Your task to perform on an android device: star an email in the gmail app Image 0: 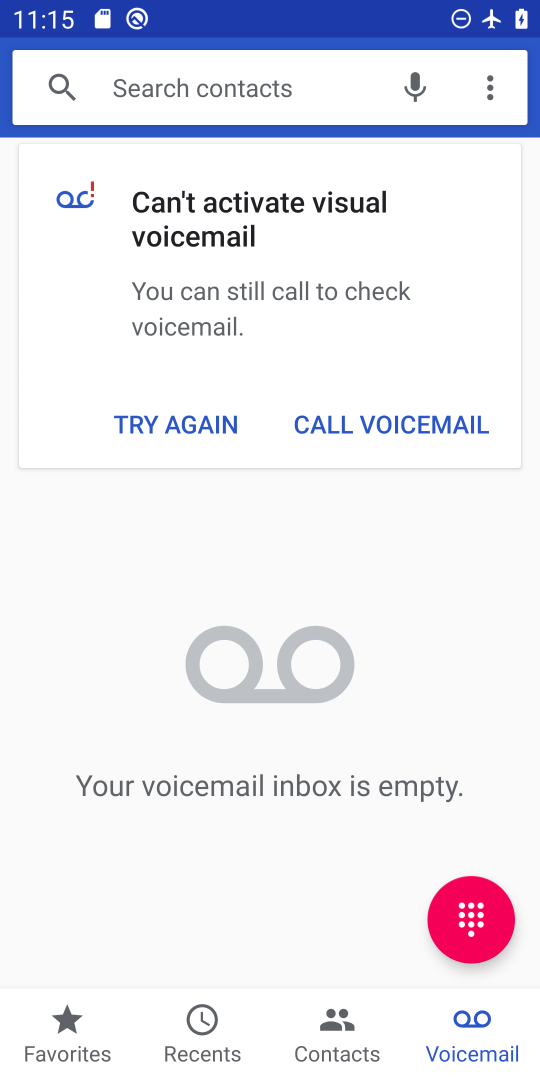
Step 0: press home button
Your task to perform on an android device: star an email in the gmail app Image 1: 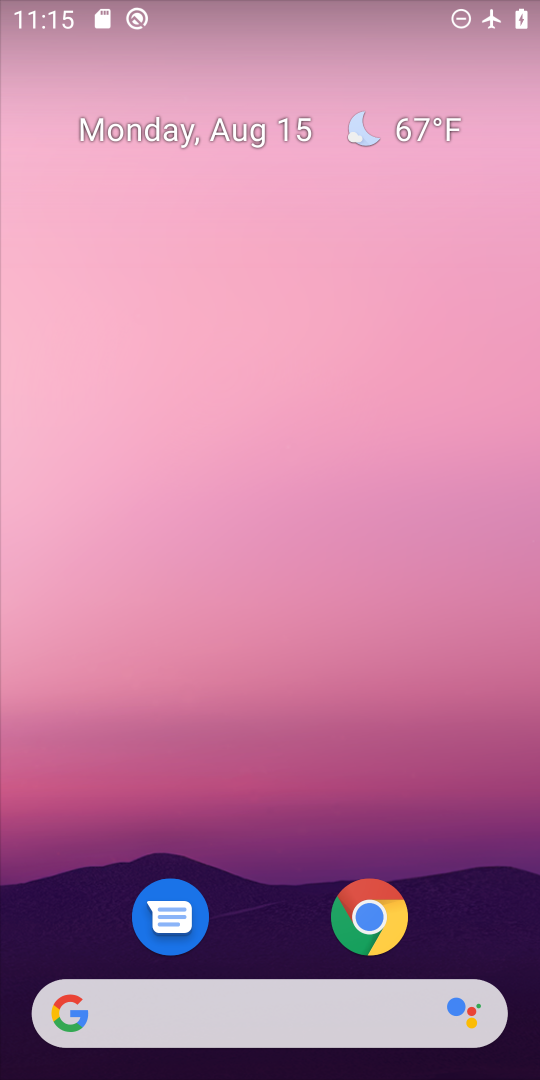
Step 1: drag from (223, 740) to (211, 0)
Your task to perform on an android device: star an email in the gmail app Image 2: 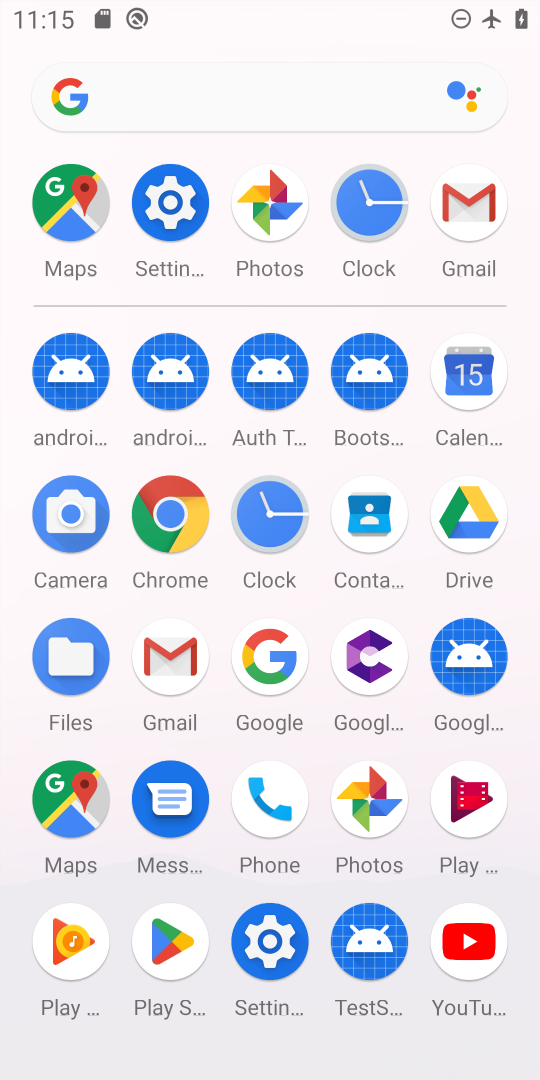
Step 2: click (467, 178)
Your task to perform on an android device: star an email in the gmail app Image 3: 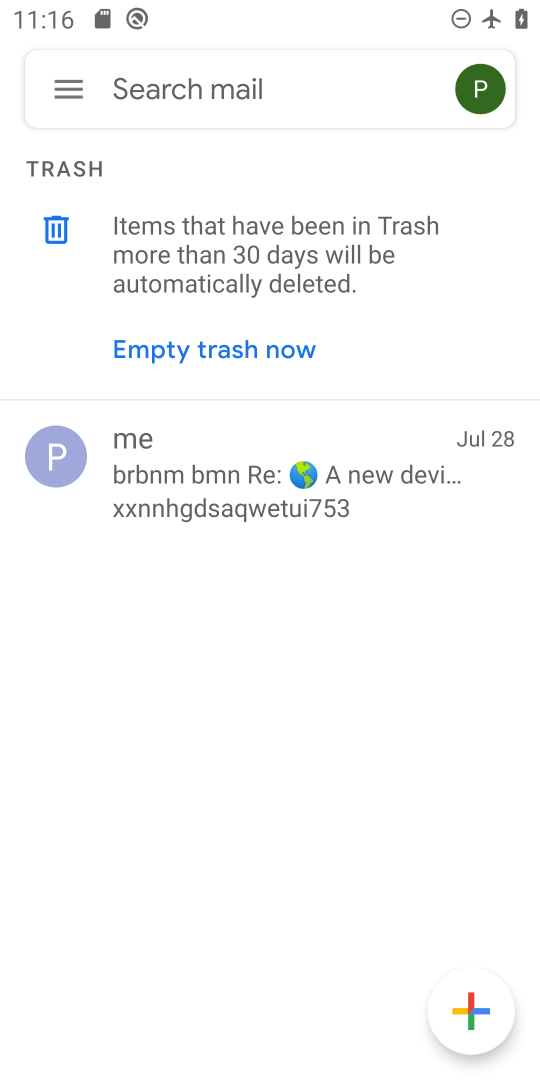
Step 3: click (393, 470)
Your task to perform on an android device: star an email in the gmail app Image 4: 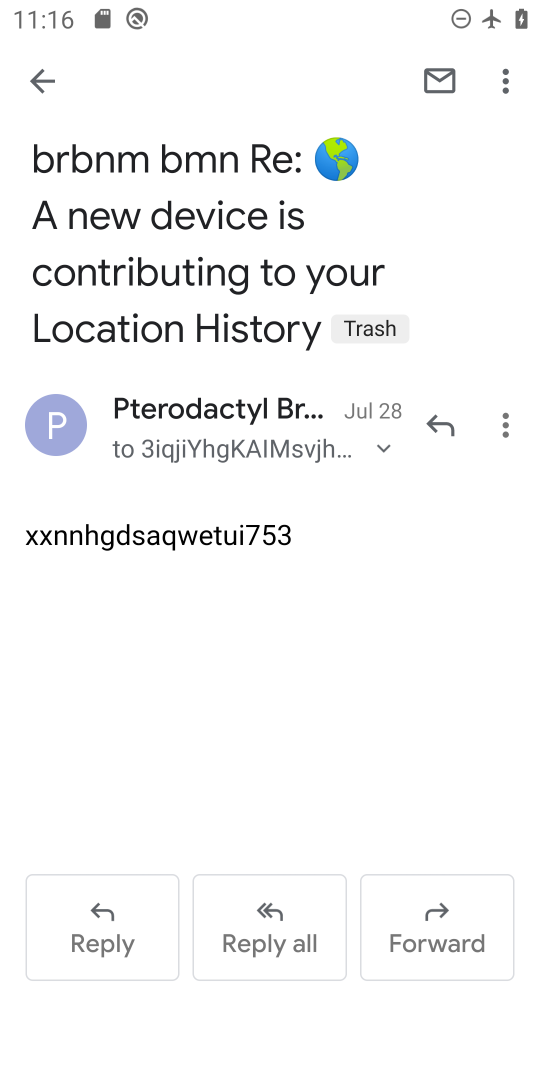
Step 4: click (502, 83)
Your task to perform on an android device: star an email in the gmail app Image 5: 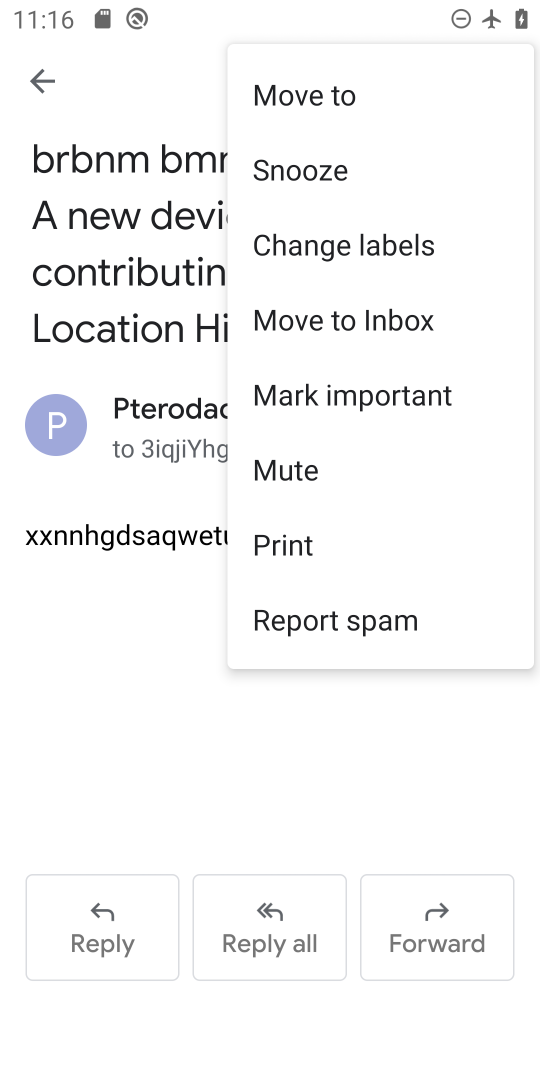
Step 5: click (179, 629)
Your task to perform on an android device: star an email in the gmail app Image 6: 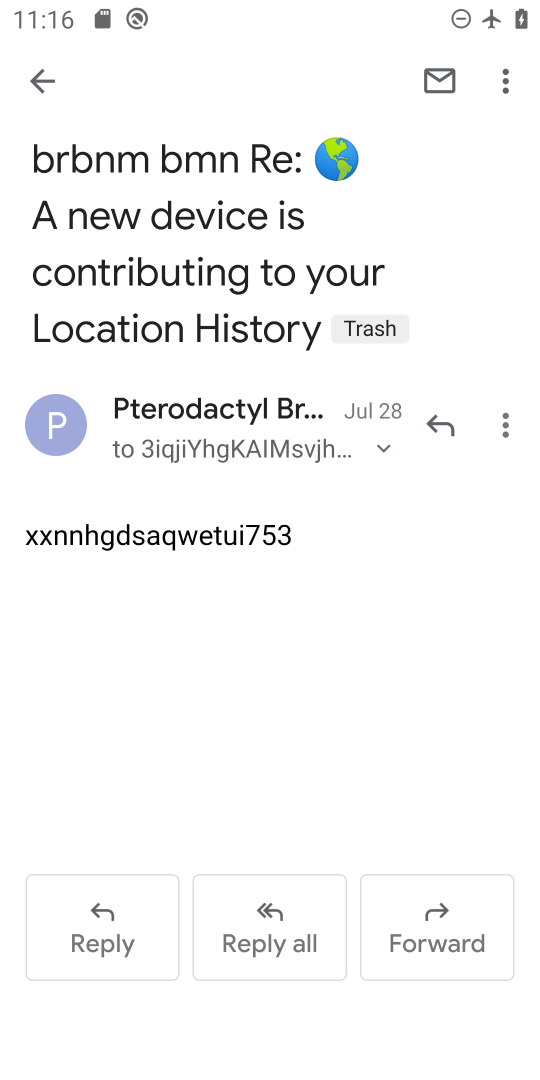
Step 6: click (510, 420)
Your task to perform on an android device: star an email in the gmail app Image 7: 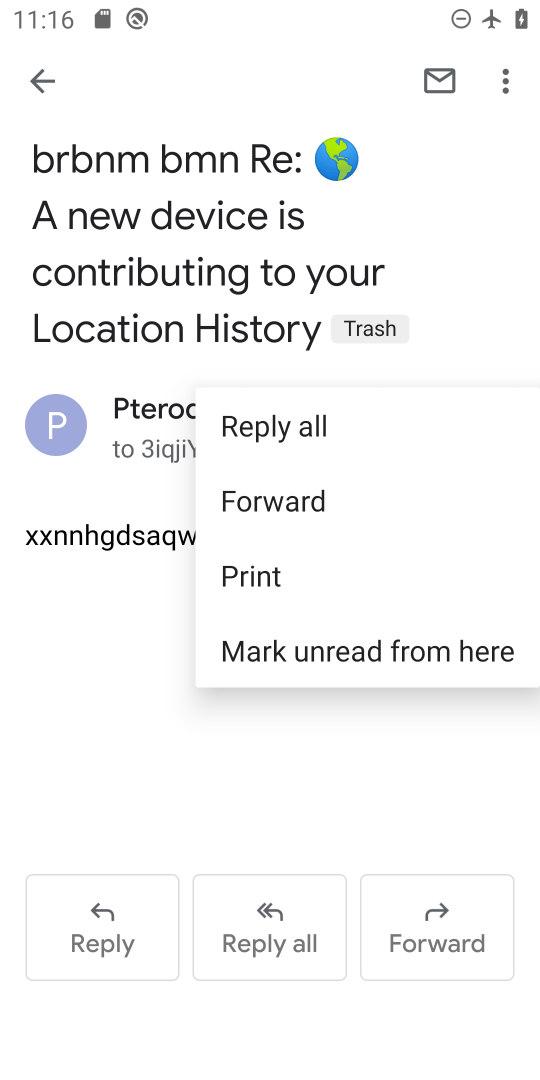
Step 7: click (155, 638)
Your task to perform on an android device: star an email in the gmail app Image 8: 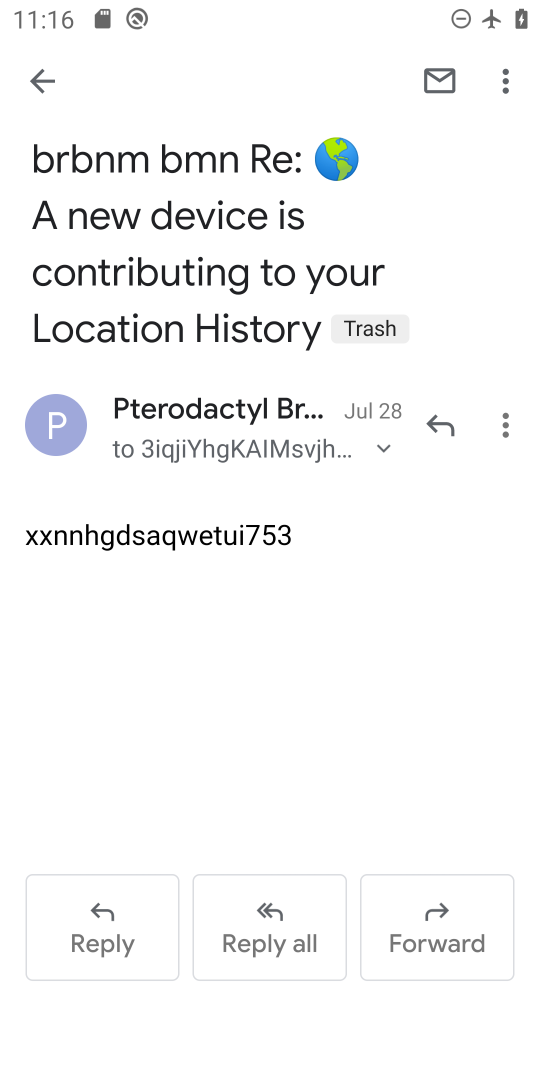
Step 8: click (506, 82)
Your task to perform on an android device: star an email in the gmail app Image 9: 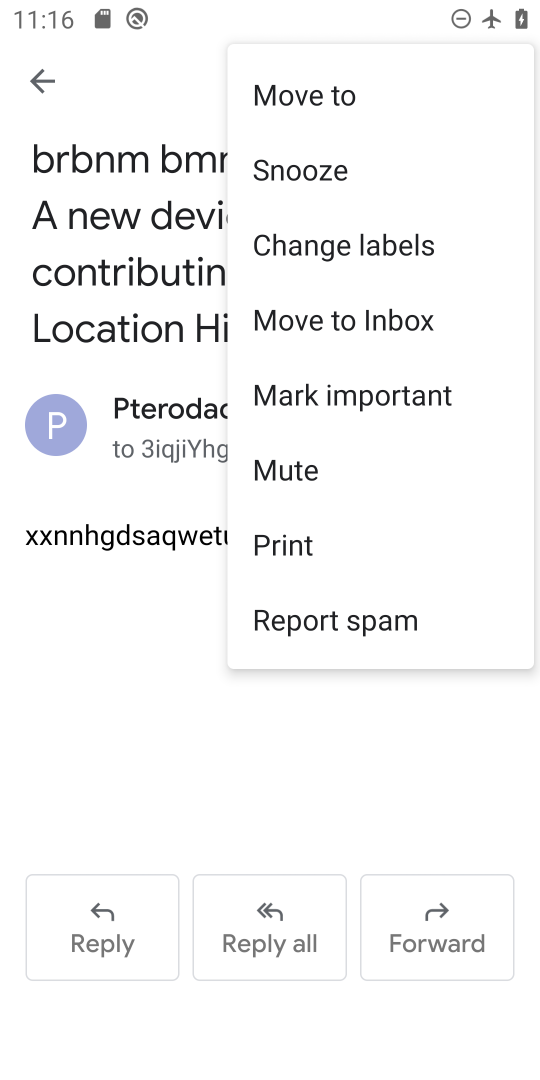
Step 9: click (376, 320)
Your task to perform on an android device: star an email in the gmail app Image 10: 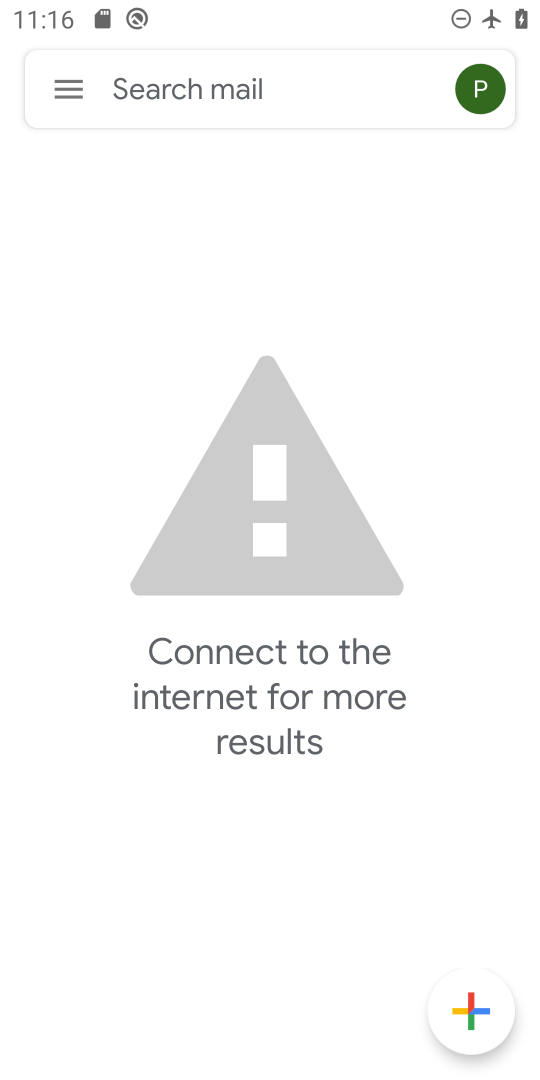
Step 10: click (71, 91)
Your task to perform on an android device: star an email in the gmail app Image 11: 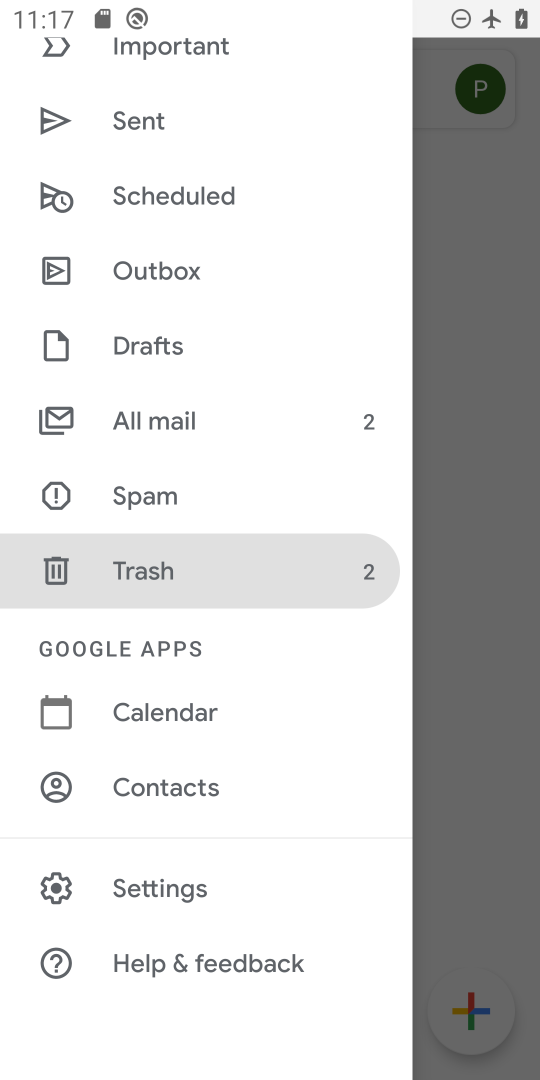
Step 11: click (155, 418)
Your task to perform on an android device: star an email in the gmail app Image 12: 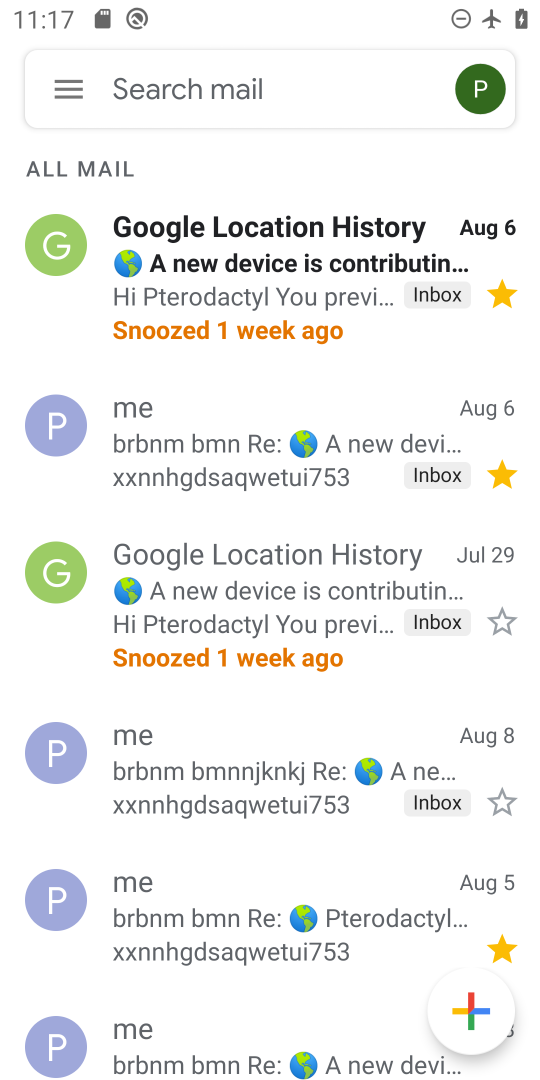
Step 12: click (504, 615)
Your task to perform on an android device: star an email in the gmail app Image 13: 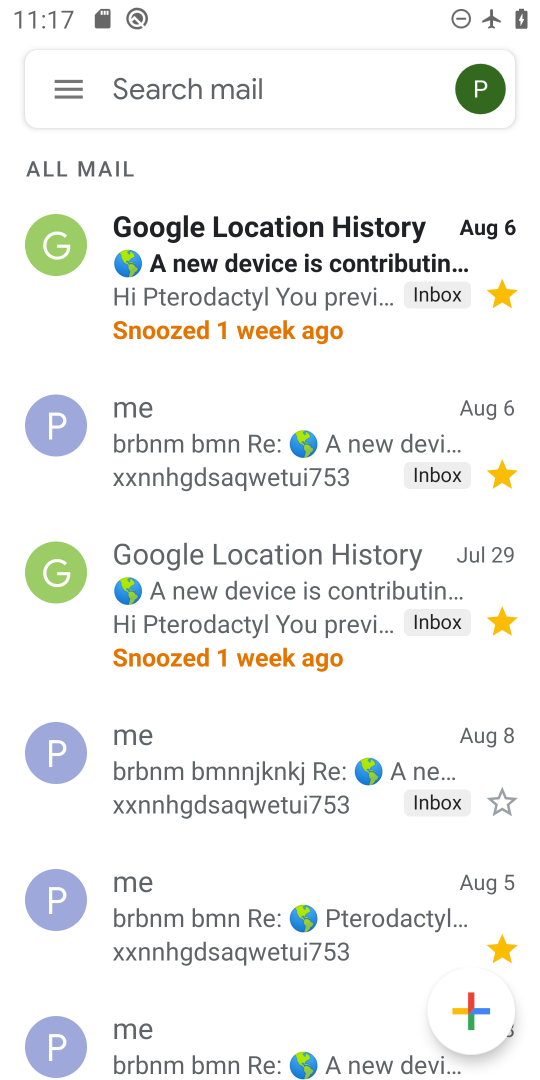
Step 13: task complete